Your task to perform on an android device: open wifi settings Image 0: 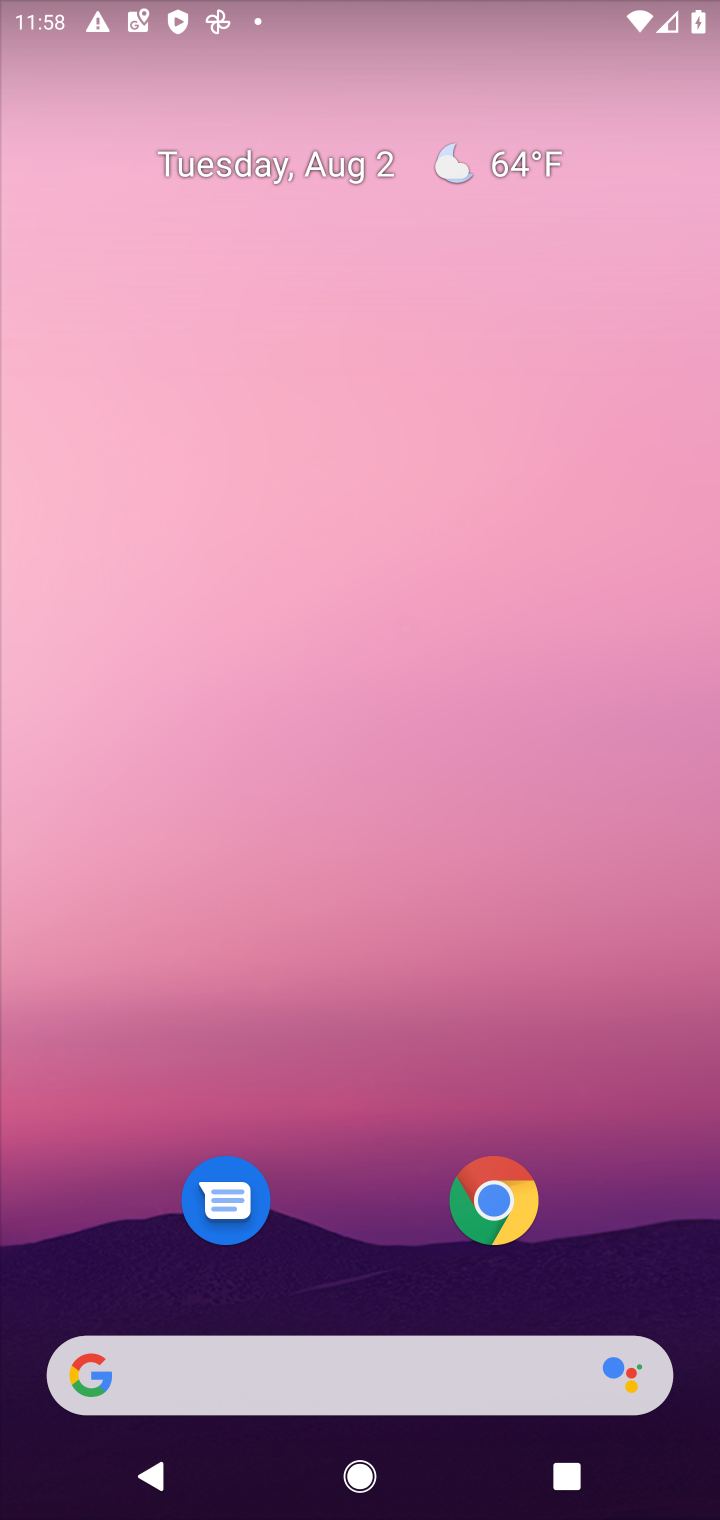
Step 0: drag from (646, 1201) to (579, 335)
Your task to perform on an android device: open wifi settings Image 1: 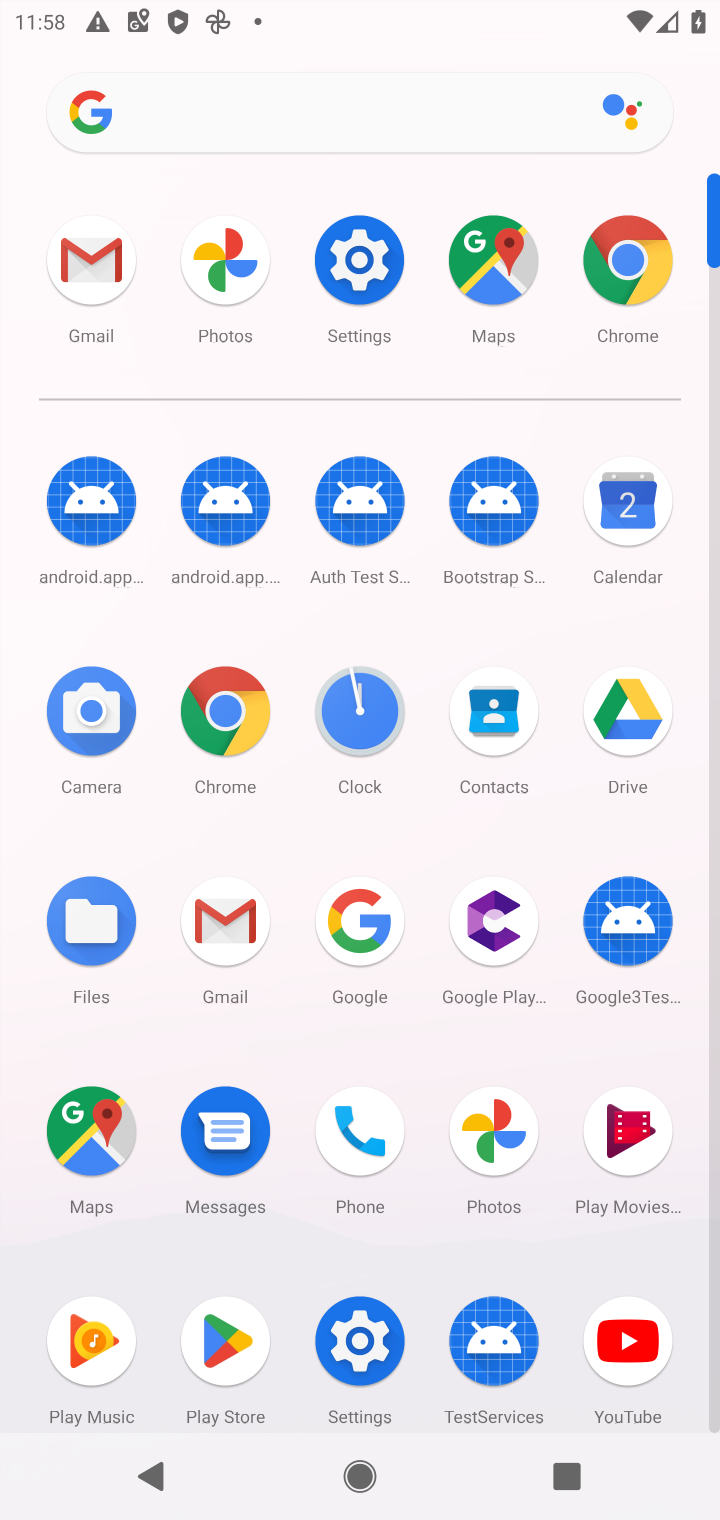
Step 1: click (358, 1338)
Your task to perform on an android device: open wifi settings Image 2: 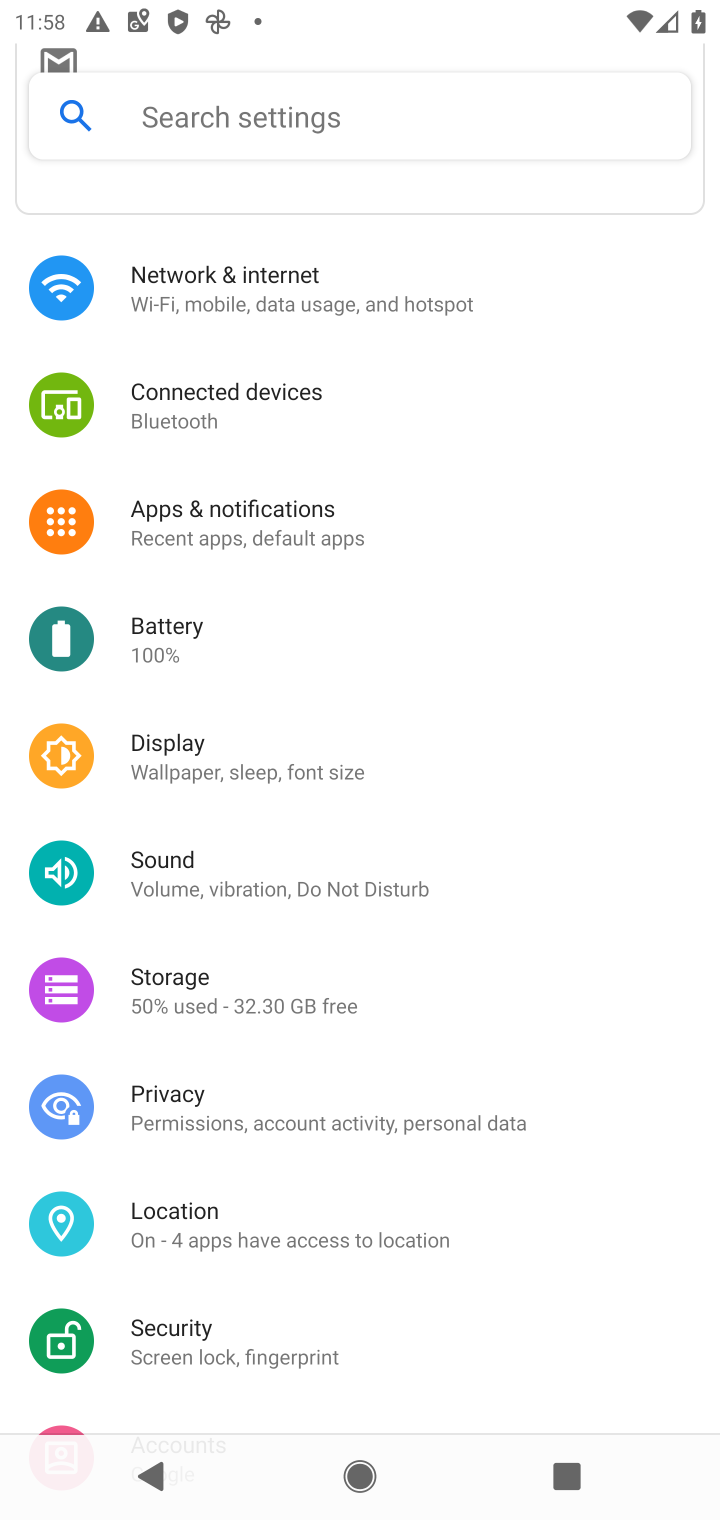
Step 2: click (205, 275)
Your task to perform on an android device: open wifi settings Image 3: 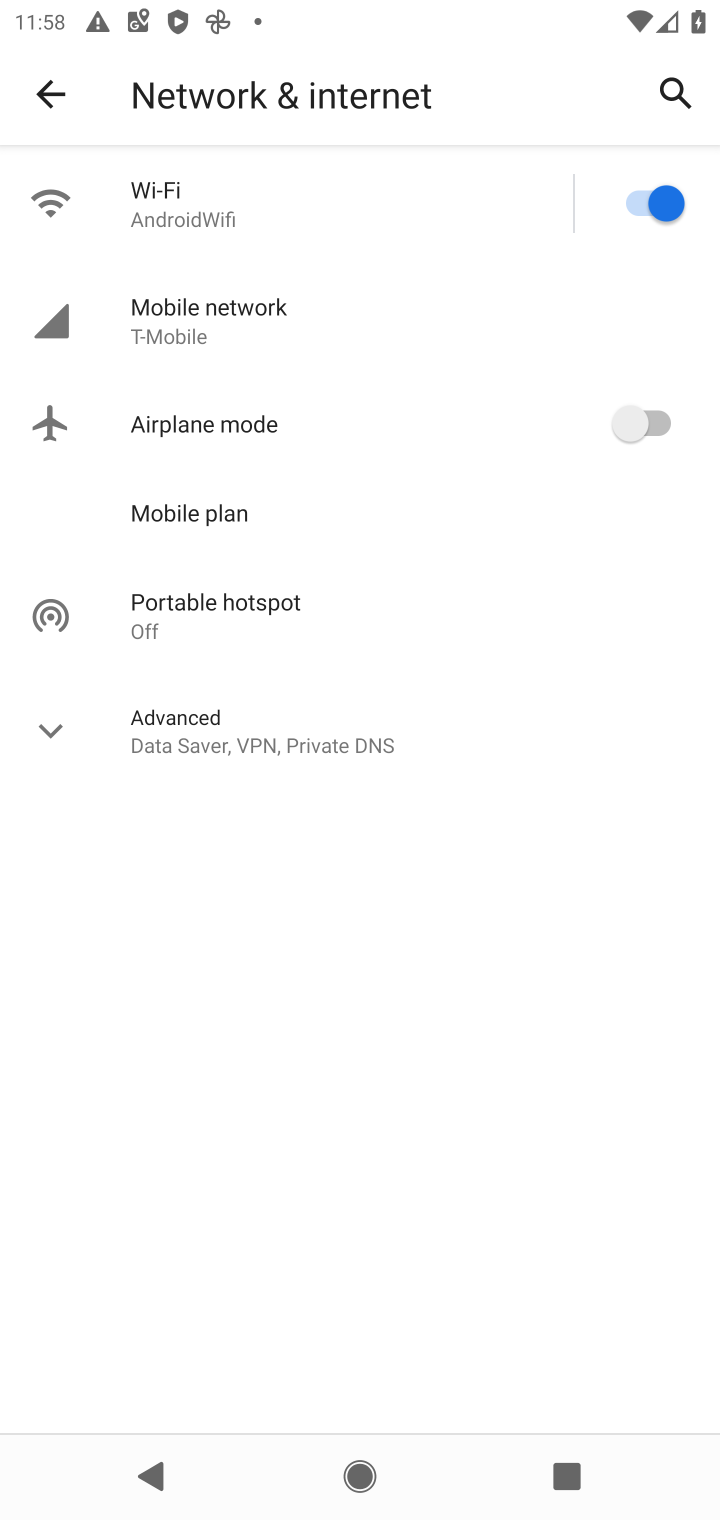
Step 3: click (177, 189)
Your task to perform on an android device: open wifi settings Image 4: 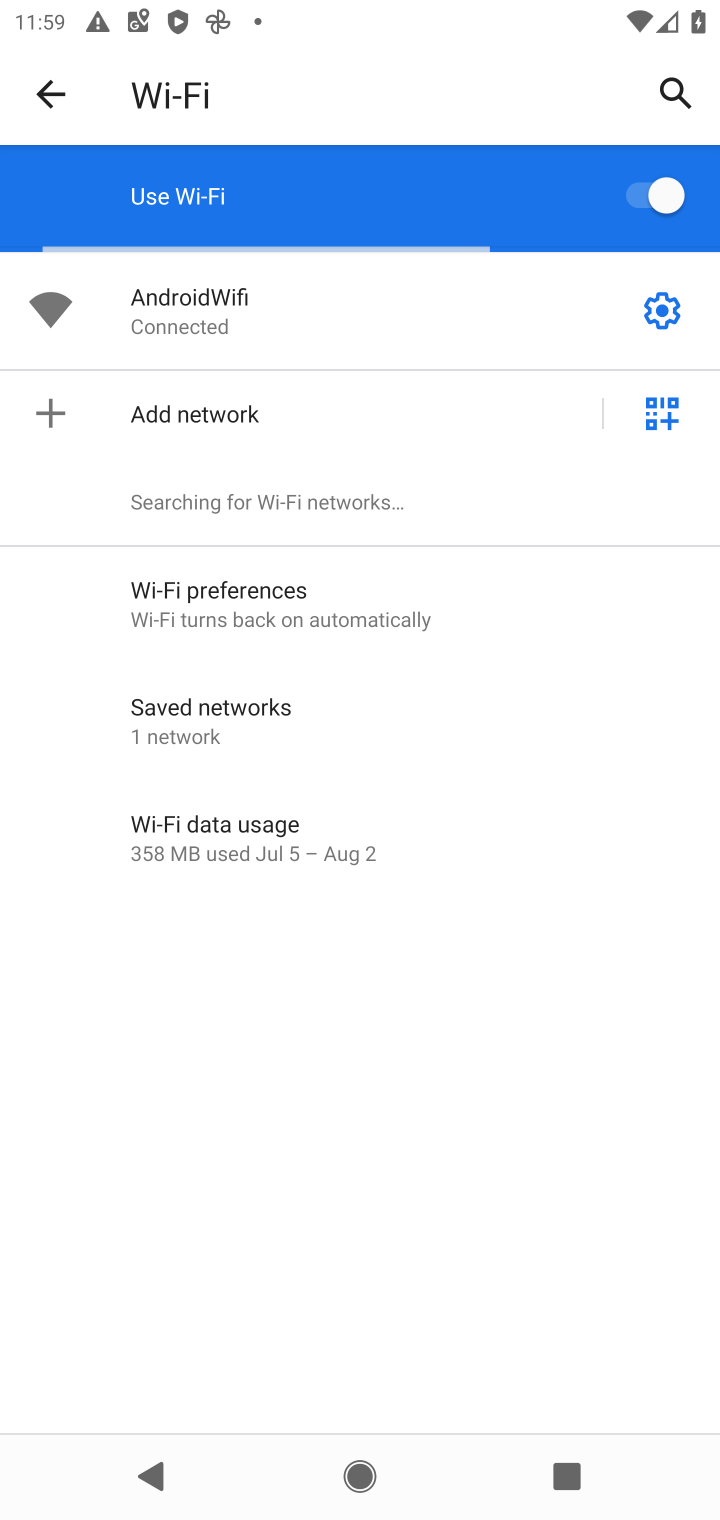
Step 4: task complete